Your task to perform on an android device: Go to Amazon Image 0: 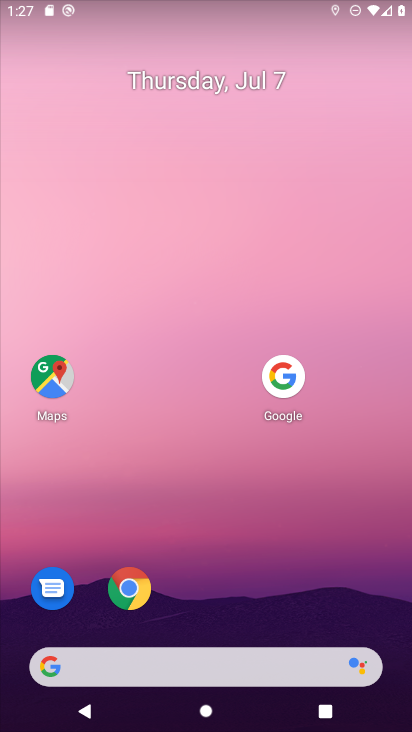
Step 0: click (135, 583)
Your task to perform on an android device: Go to Amazon Image 1: 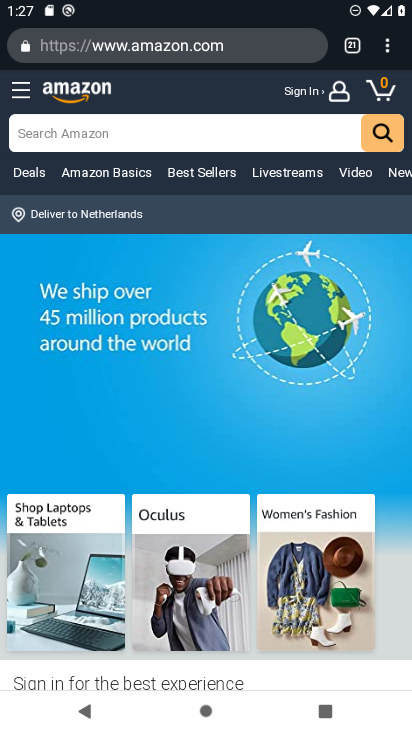
Step 1: task complete